Your task to perform on an android device: change alarm snooze length Image 0: 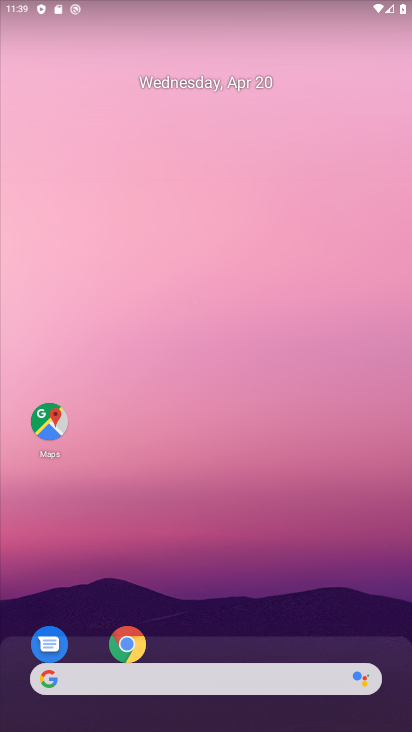
Step 0: drag from (381, 642) to (273, 111)
Your task to perform on an android device: change alarm snooze length Image 1: 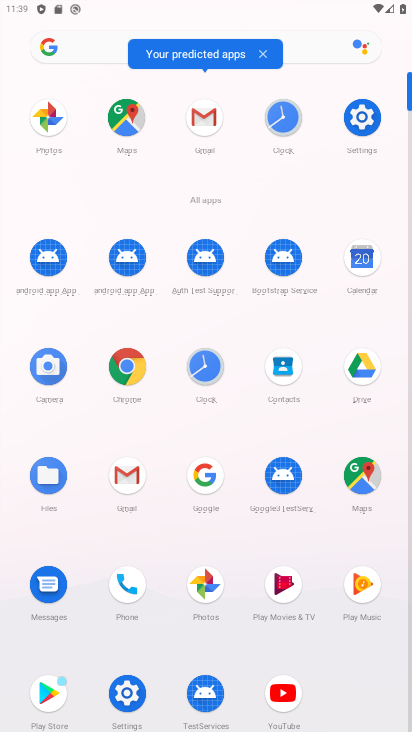
Step 1: click (284, 115)
Your task to perform on an android device: change alarm snooze length Image 2: 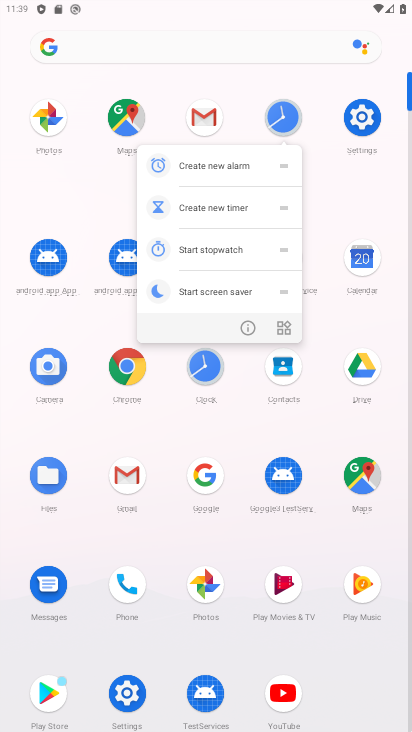
Step 2: click (278, 122)
Your task to perform on an android device: change alarm snooze length Image 3: 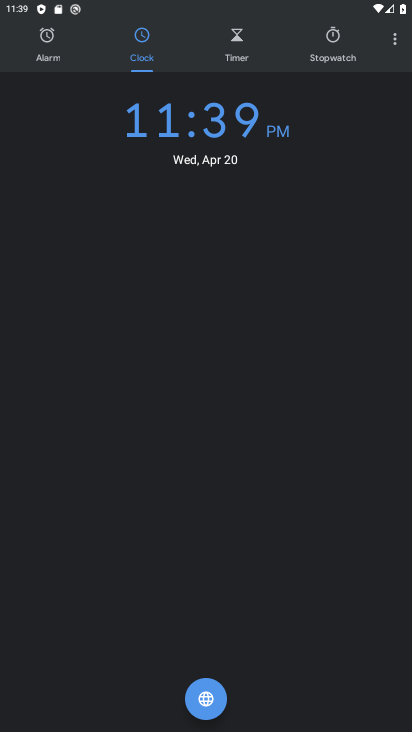
Step 3: click (391, 44)
Your task to perform on an android device: change alarm snooze length Image 4: 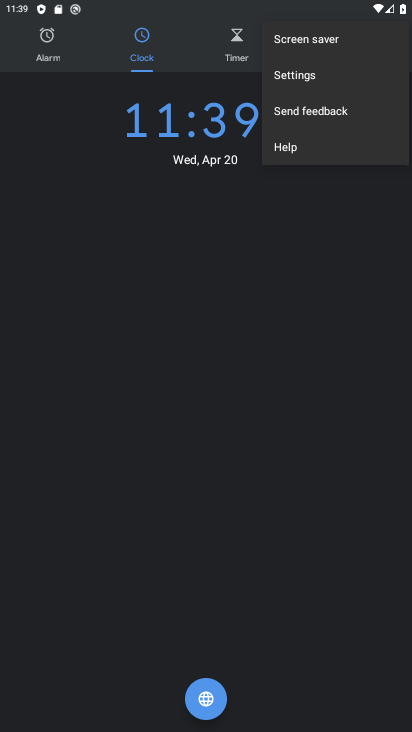
Step 4: click (293, 74)
Your task to perform on an android device: change alarm snooze length Image 5: 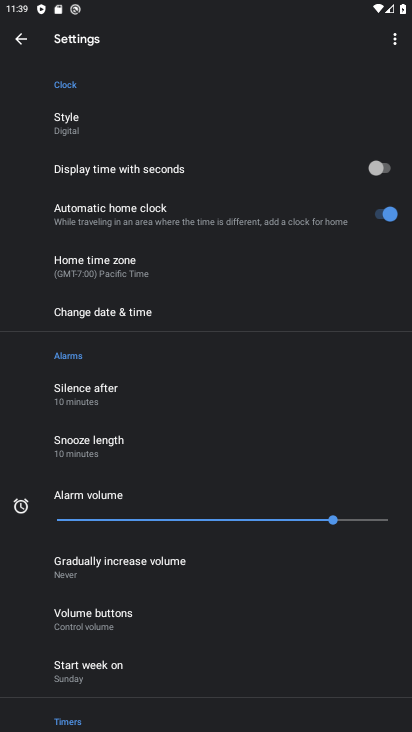
Step 5: click (71, 446)
Your task to perform on an android device: change alarm snooze length Image 6: 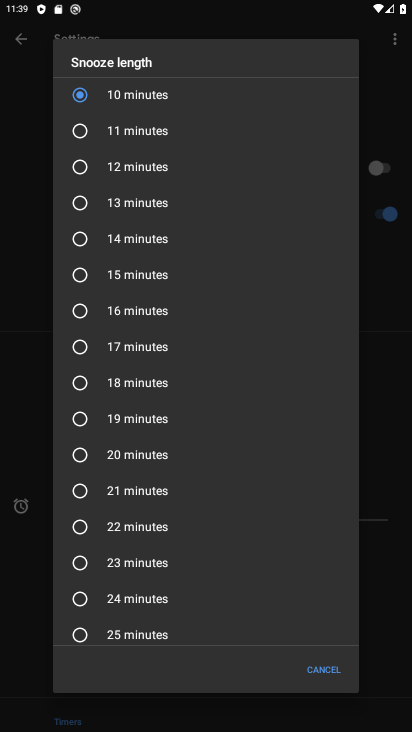
Step 6: click (78, 272)
Your task to perform on an android device: change alarm snooze length Image 7: 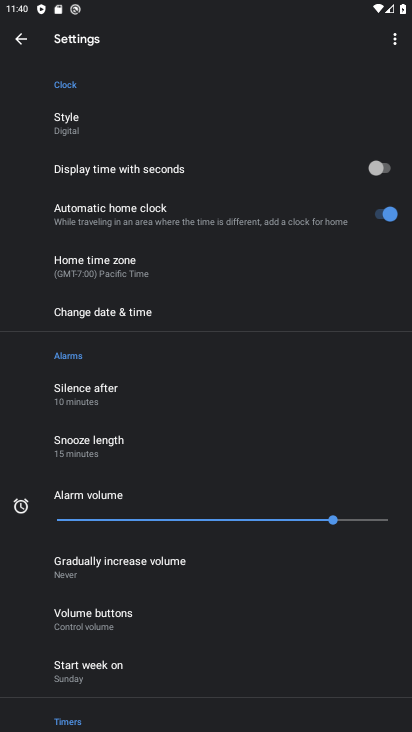
Step 7: task complete